Your task to perform on an android device: Open Google Chrome and open the bookmarks view Image 0: 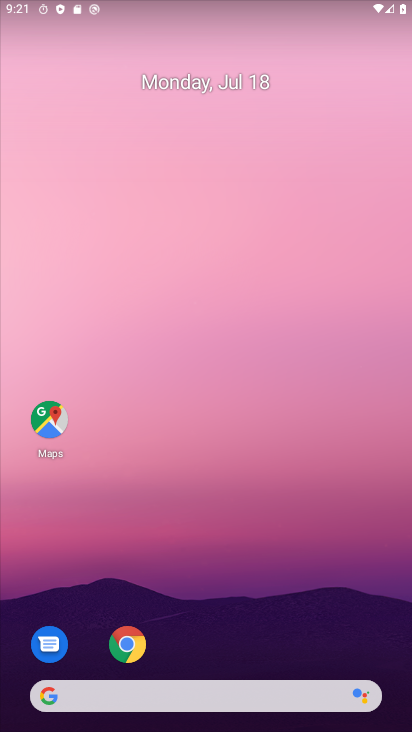
Step 0: press home button
Your task to perform on an android device: Open Google Chrome and open the bookmarks view Image 1: 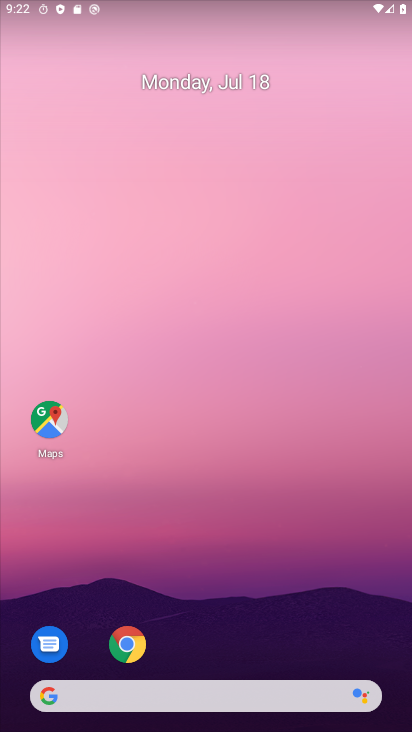
Step 1: click (128, 641)
Your task to perform on an android device: Open Google Chrome and open the bookmarks view Image 2: 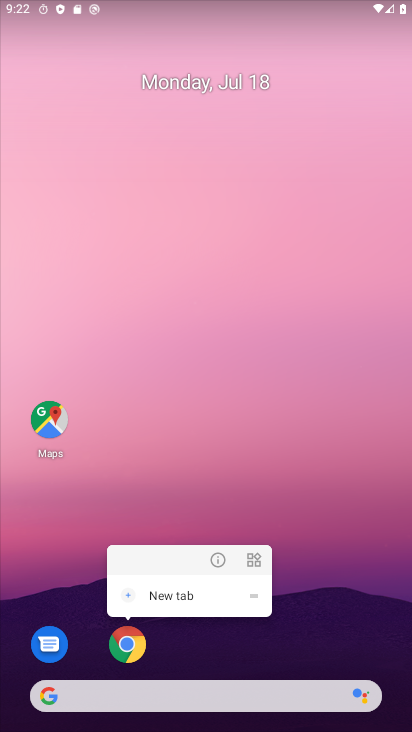
Step 2: click (125, 641)
Your task to perform on an android device: Open Google Chrome and open the bookmarks view Image 3: 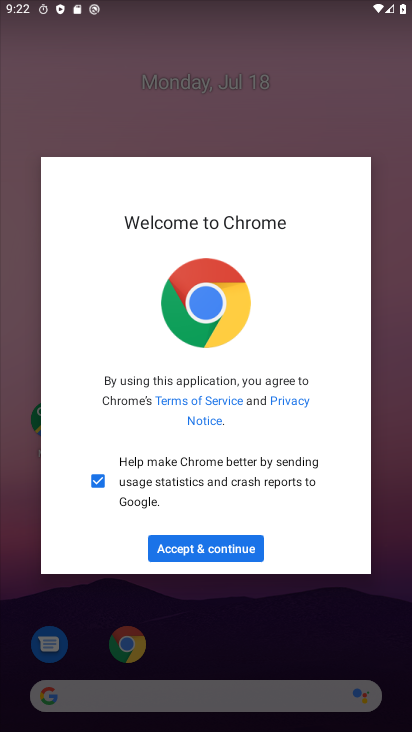
Step 3: click (197, 544)
Your task to perform on an android device: Open Google Chrome and open the bookmarks view Image 4: 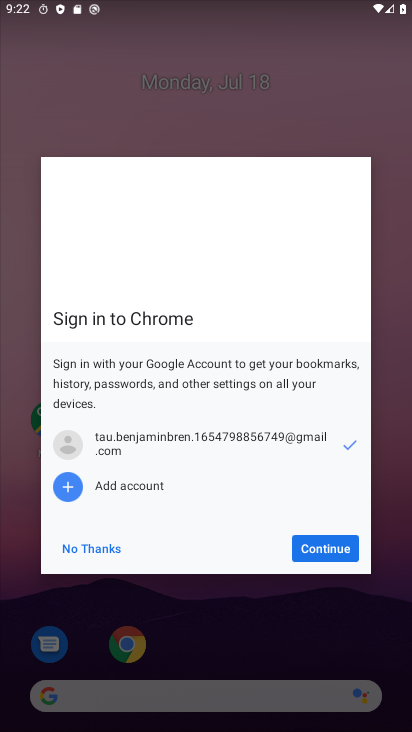
Step 4: click (322, 544)
Your task to perform on an android device: Open Google Chrome and open the bookmarks view Image 5: 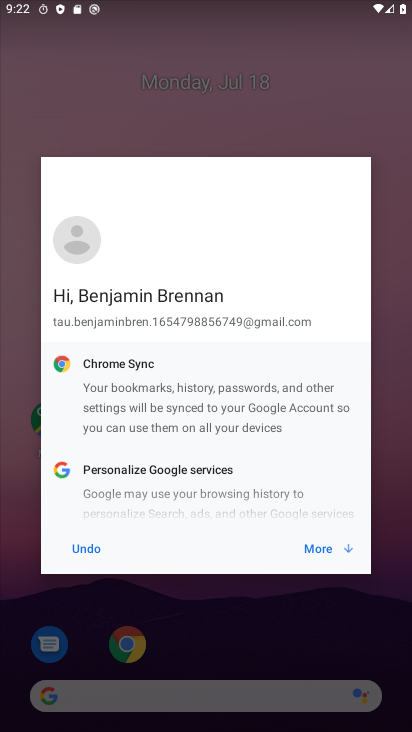
Step 5: click (322, 544)
Your task to perform on an android device: Open Google Chrome and open the bookmarks view Image 6: 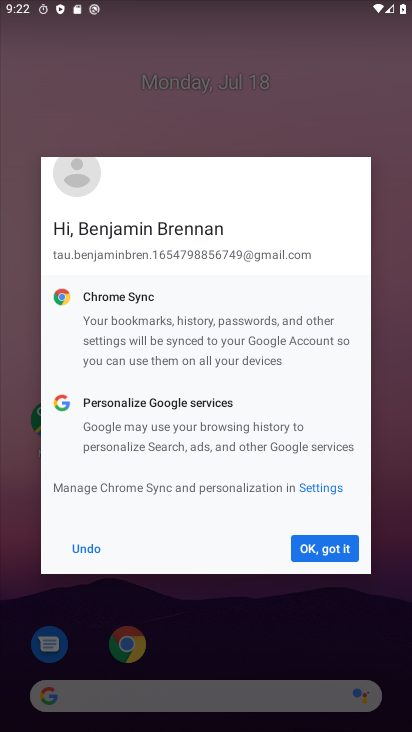
Step 6: click (316, 548)
Your task to perform on an android device: Open Google Chrome and open the bookmarks view Image 7: 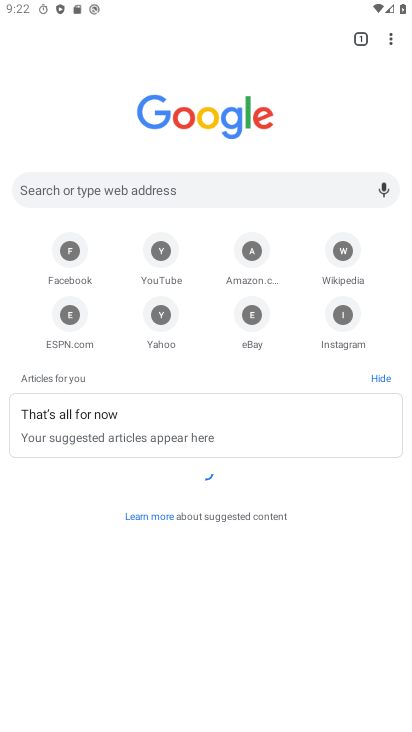
Step 7: click (390, 34)
Your task to perform on an android device: Open Google Chrome and open the bookmarks view Image 8: 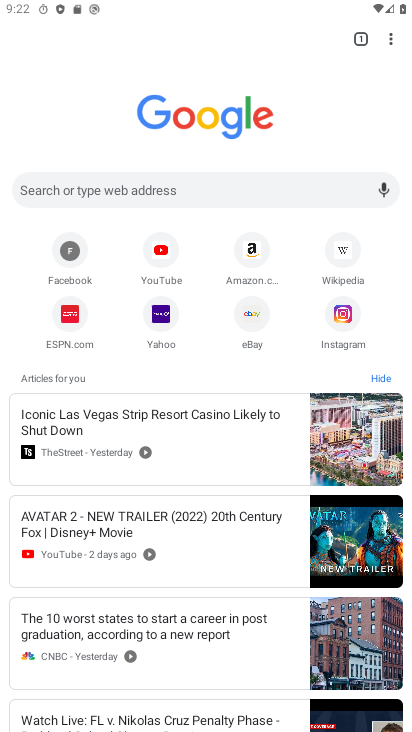
Step 8: click (387, 34)
Your task to perform on an android device: Open Google Chrome and open the bookmarks view Image 9: 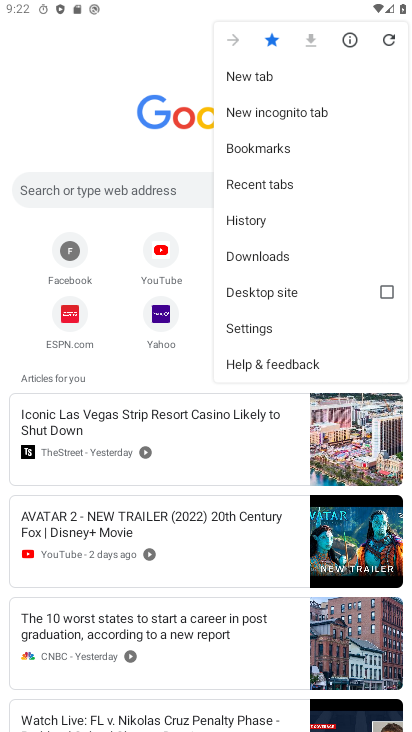
Step 9: click (298, 142)
Your task to perform on an android device: Open Google Chrome and open the bookmarks view Image 10: 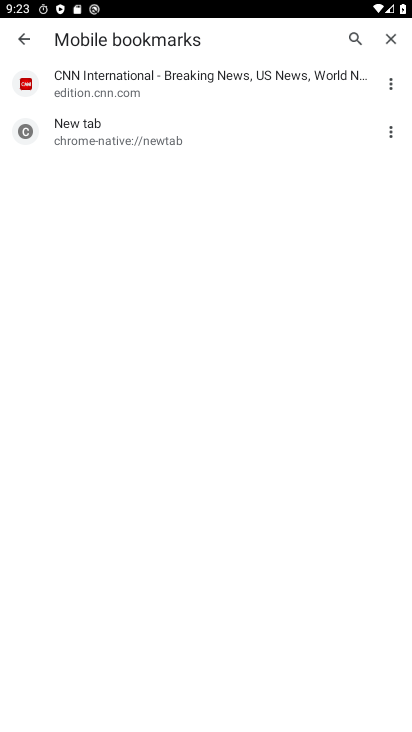
Step 10: task complete